Your task to perform on an android device: What's the weather going to be tomorrow? Image 0: 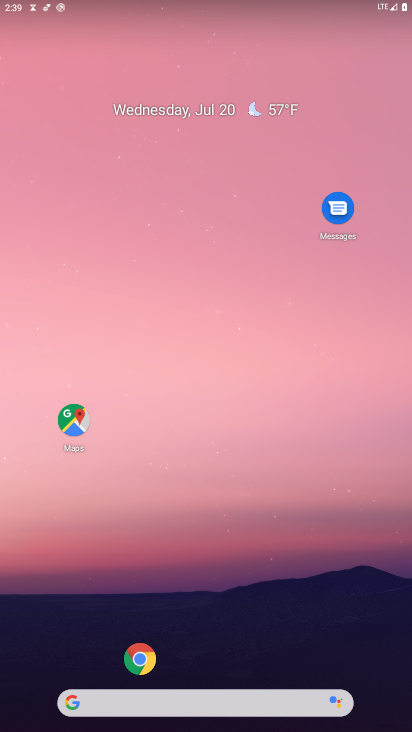
Step 0: click (107, 707)
Your task to perform on an android device: What's the weather going to be tomorrow? Image 1: 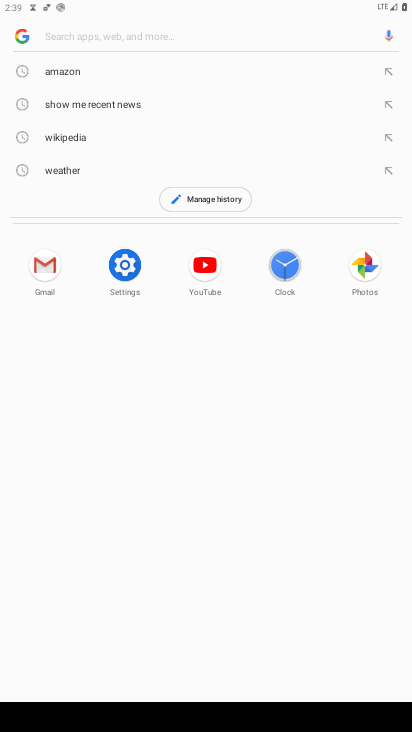
Step 1: type "What's the weather going to be tomorrow?"
Your task to perform on an android device: What's the weather going to be tomorrow? Image 2: 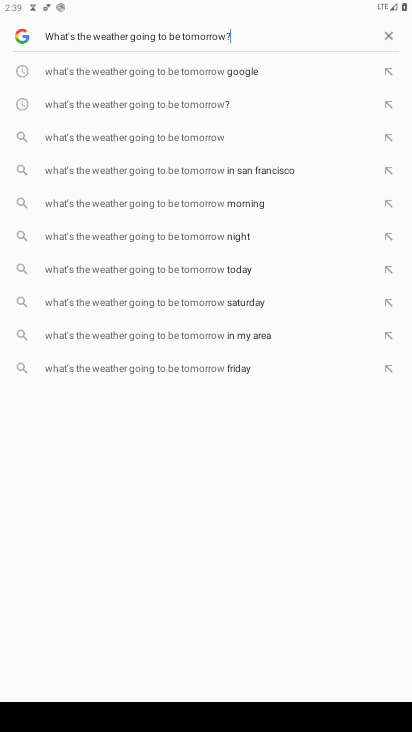
Step 2: type ""
Your task to perform on an android device: What's the weather going to be tomorrow? Image 3: 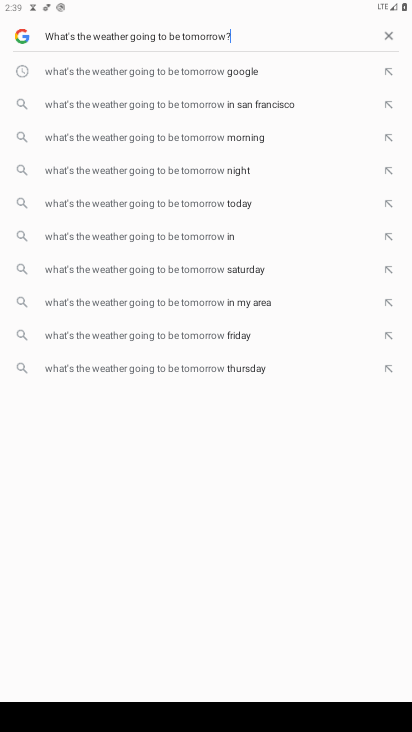
Step 3: type ""
Your task to perform on an android device: What's the weather going to be tomorrow? Image 4: 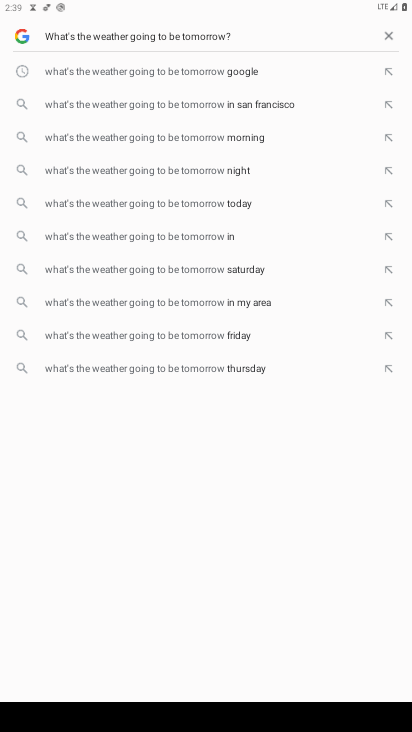
Step 4: type ""
Your task to perform on an android device: What's the weather going to be tomorrow? Image 5: 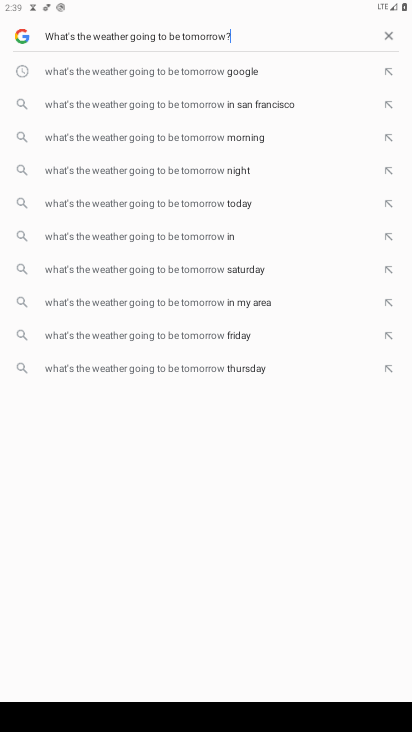
Step 5: task complete